Your task to perform on an android device: toggle pop-ups in chrome Image 0: 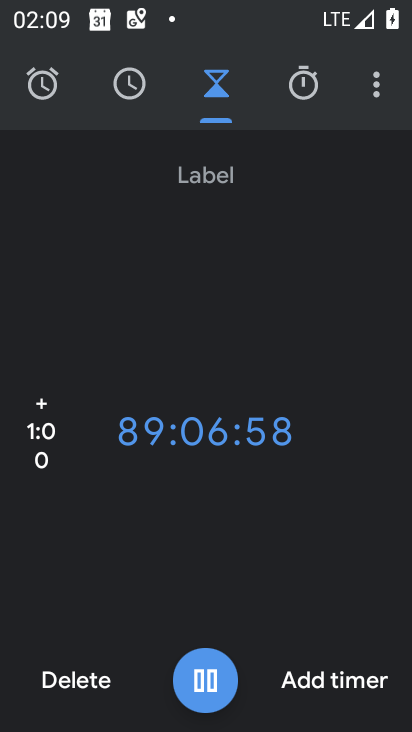
Step 0: press home button
Your task to perform on an android device: toggle pop-ups in chrome Image 1: 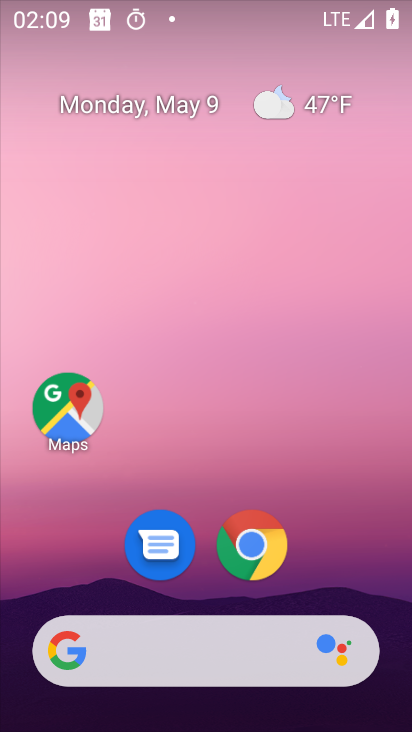
Step 1: drag from (333, 629) to (342, 11)
Your task to perform on an android device: toggle pop-ups in chrome Image 2: 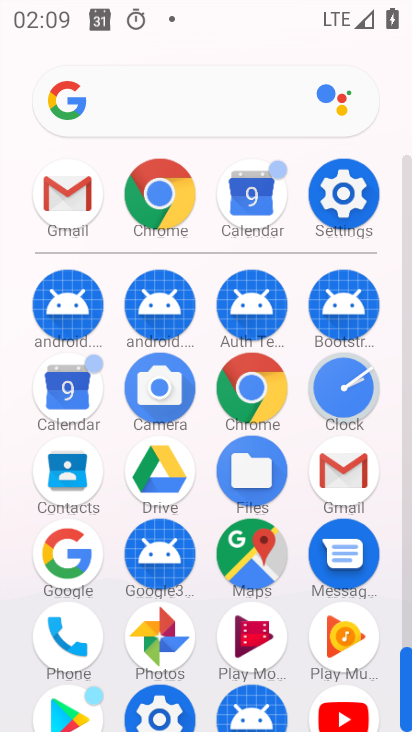
Step 2: click (252, 394)
Your task to perform on an android device: toggle pop-ups in chrome Image 3: 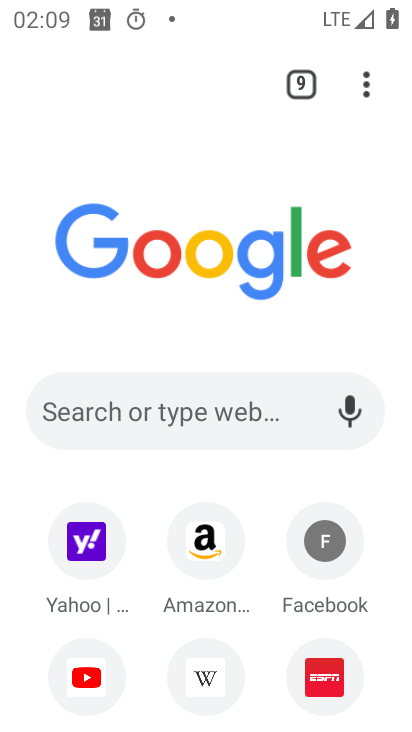
Step 3: drag from (364, 86) to (160, 579)
Your task to perform on an android device: toggle pop-ups in chrome Image 4: 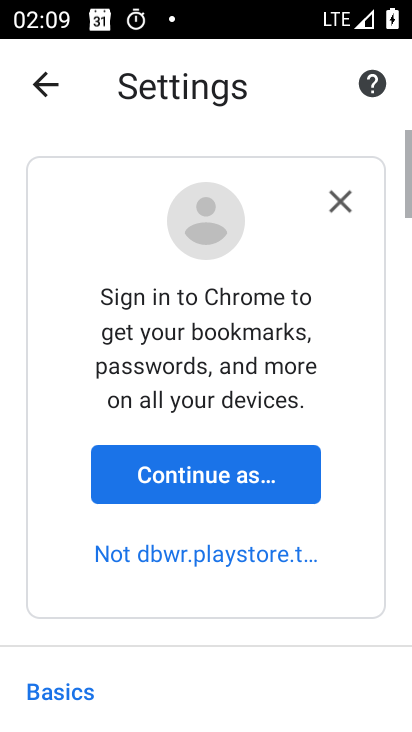
Step 4: drag from (256, 638) to (305, 43)
Your task to perform on an android device: toggle pop-ups in chrome Image 5: 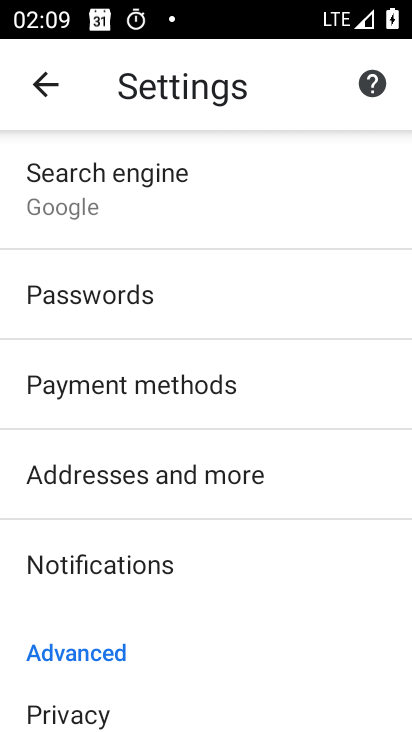
Step 5: drag from (232, 638) to (309, 164)
Your task to perform on an android device: toggle pop-ups in chrome Image 6: 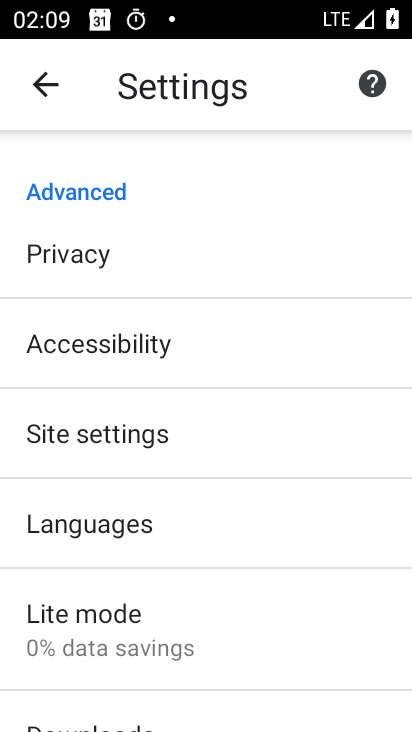
Step 6: click (198, 412)
Your task to perform on an android device: toggle pop-ups in chrome Image 7: 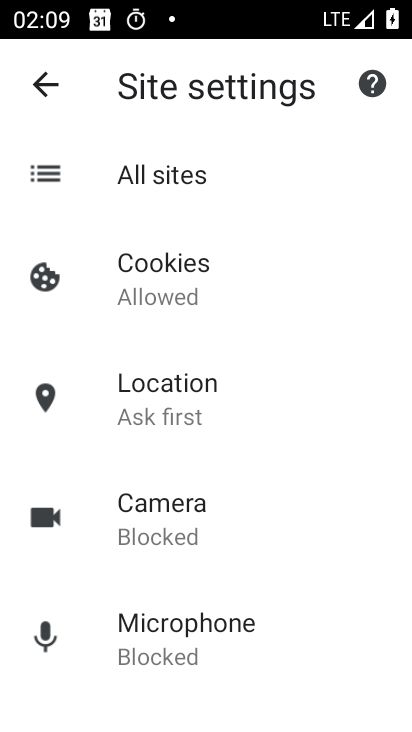
Step 7: drag from (249, 726) to (318, 186)
Your task to perform on an android device: toggle pop-ups in chrome Image 8: 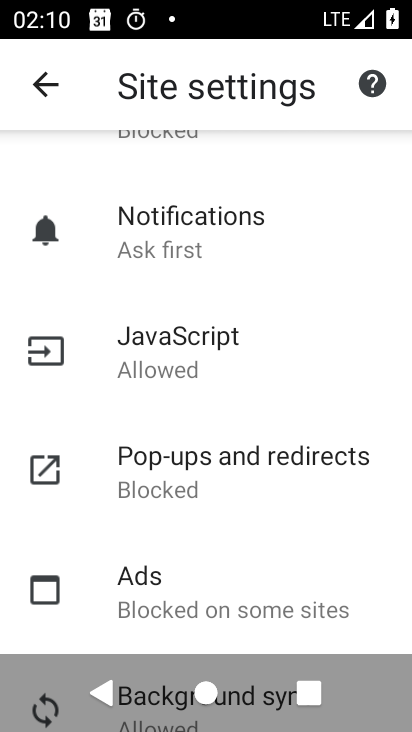
Step 8: click (254, 475)
Your task to perform on an android device: toggle pop-ups in chrome Image 9: 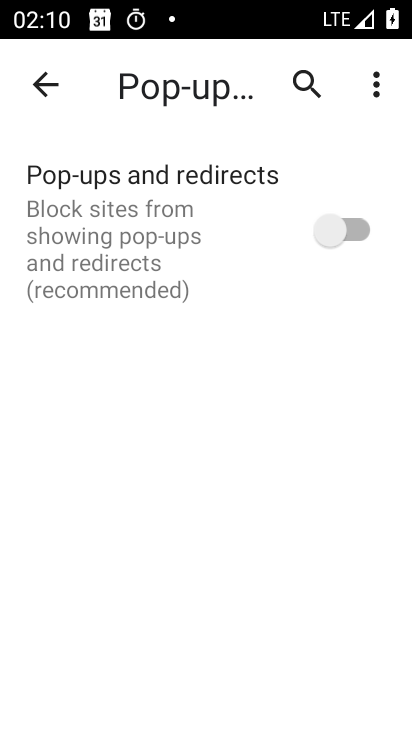
Step 9: click (350, 228)
Your task to perform on an android device: toggle pop-ups in chrome Image 10: 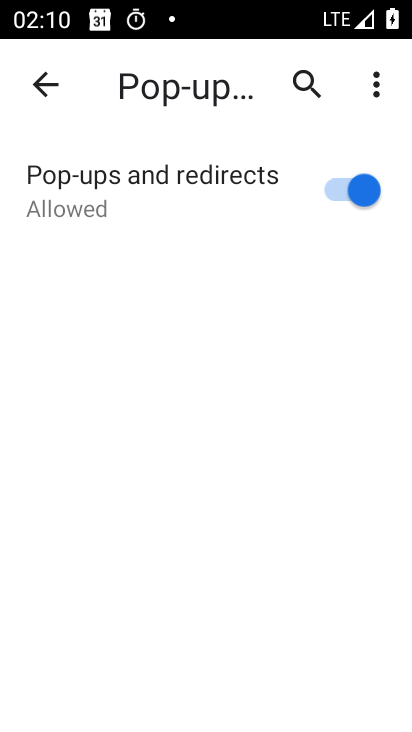
Step 10: task complete